Your task to perform on an android device: Go to Yahoo.com Image 0: 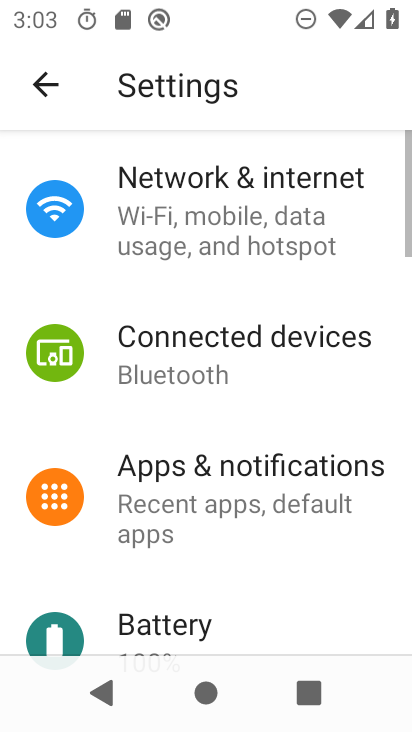
Step 0: press home button
Your task to perform on an android device: Go to Yahoo.com Image 1: 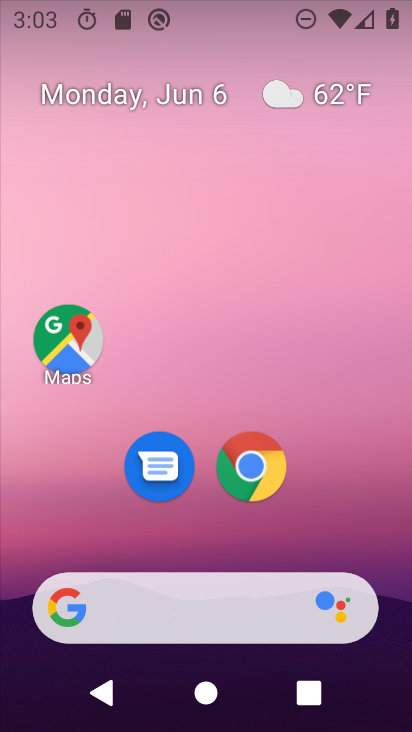
Step 1: click (252, 460)
Your task to perform on an android device: Go to Yahoo.com Image 2: 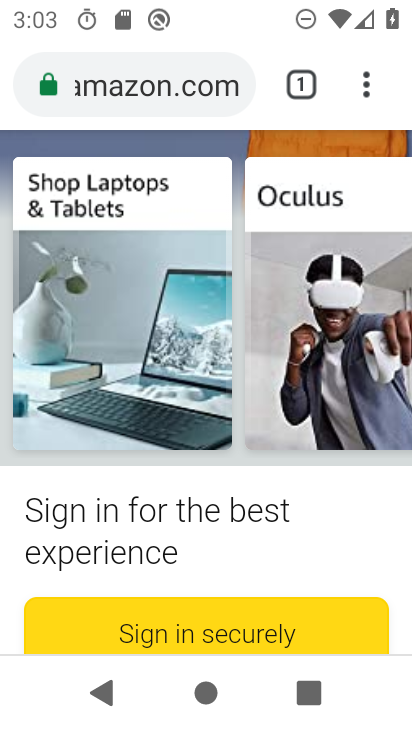
Step 2: press back button
Your task to perform on an android device: Go to Yahoo.com Image 3: 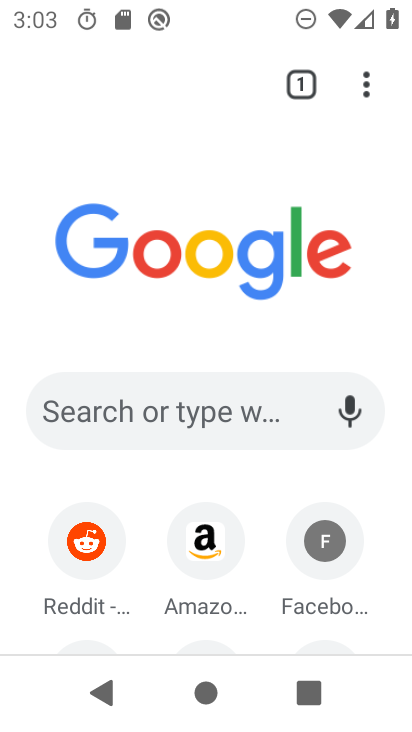
Step 3: drag from (141, 604) to (129, 493)
Your task to perform on an android device: Go to Yahoo.com Image 4: 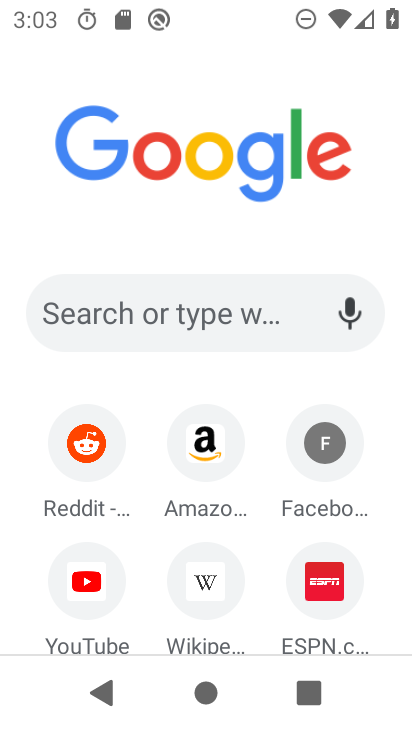
Step 4: drag from (207, 616) to (172, 470)
Your task to perform on an android device: Go to Yahoo.com Image 5: 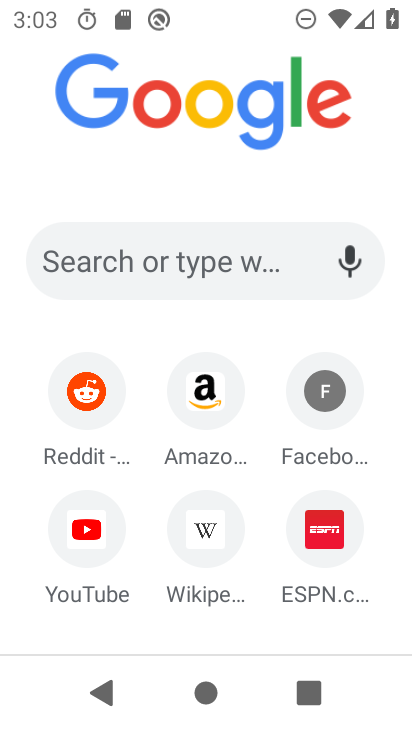
Step 5: drag from (254, 616) to (218, 460)
Your task to perform on an android device: Go to Yahoo.com Image 6: 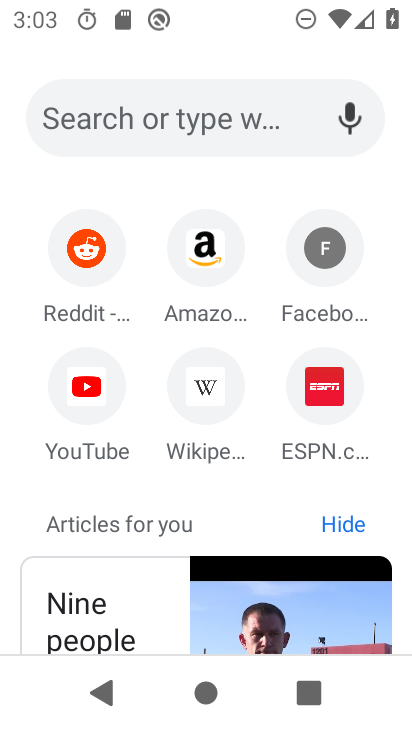
Step 6: click (158, 119)
Your task to perform on an android device: Go to Yahoo.com Image 7: 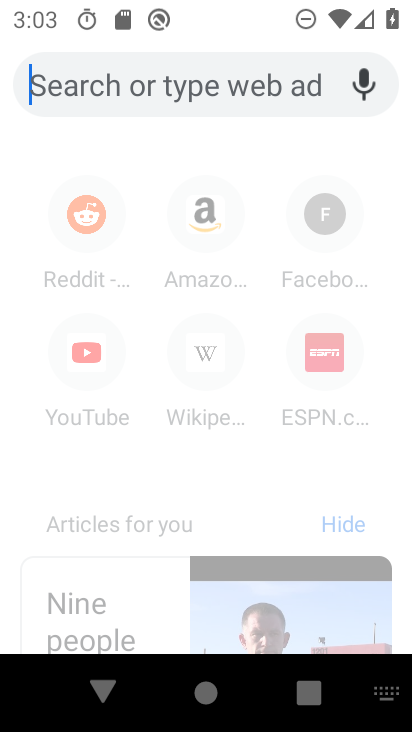
Step 7: type "www.yahoo.com"
Your task to perform on an android device: Go to Yahoo.com Image 8: 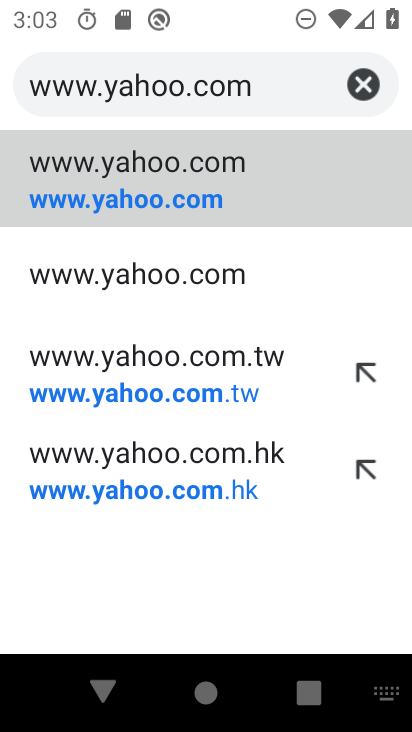
Step 8: click (186, 197)
Your task to perform on an android device: Go to Yahoo.com Image 9: 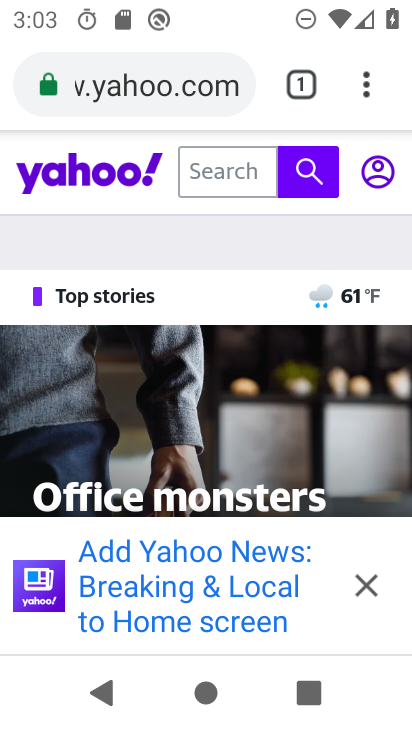
Step 9: task complete